Your task to perform on an android device: find which apps use the phone's location Image 0: 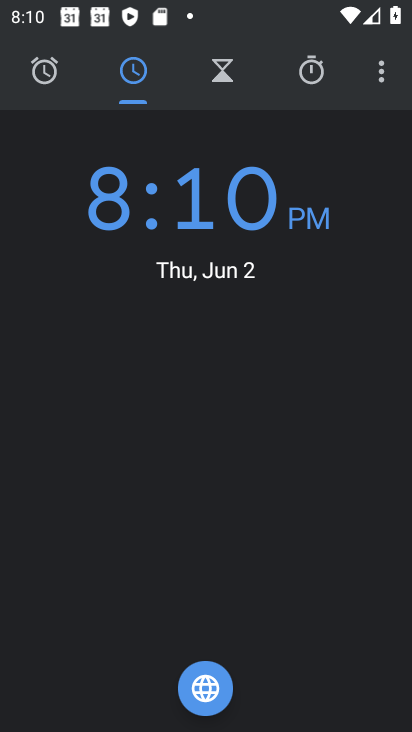
Step 0: press home button
Your task to perform on an android device: find which apps use the phone's location Image 1: 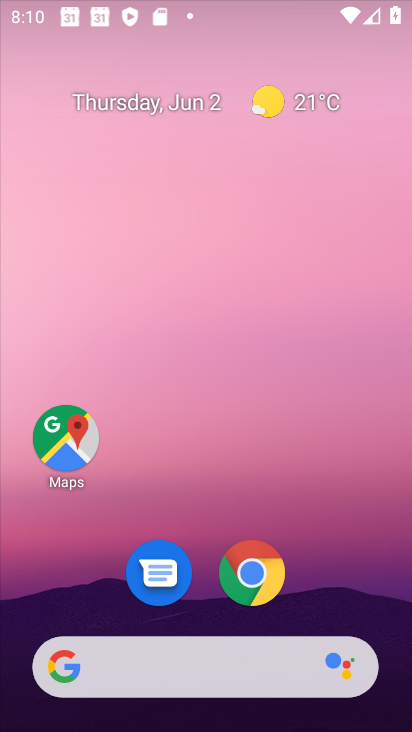
Step 1: drag from (321, 385) to (318, 111)
Your task to perform on an android device: find which apps use the phone's location Image 2: 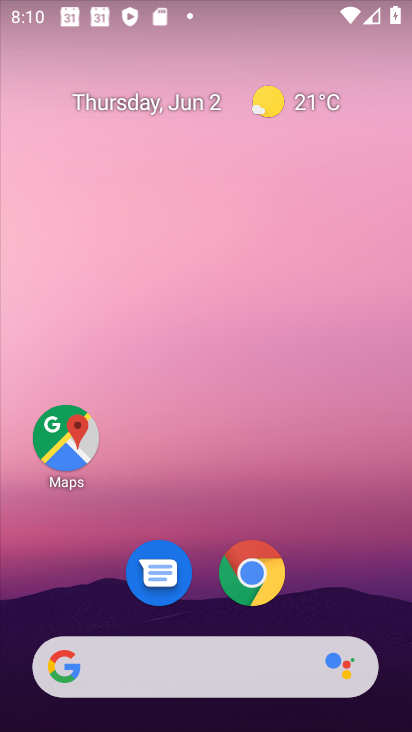
Step 2: drag from (196, 530) to (166, 32)
Your task to perform on an android device: find which apps use the phone's location Image 3: 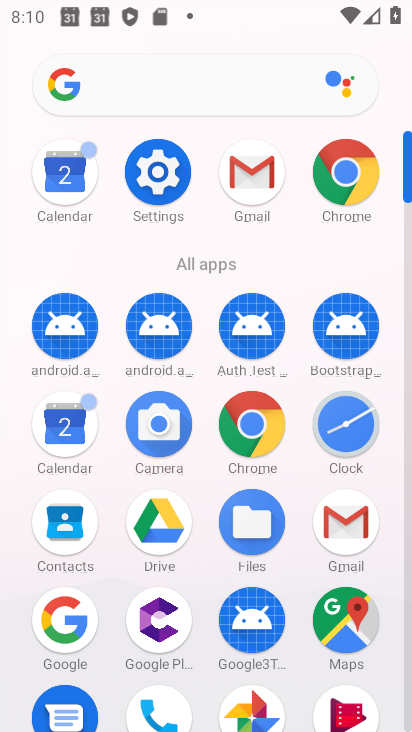
Step 3: click (163, 196)
Your task to perform on an android device: find which apps use the phone's location Image 4: 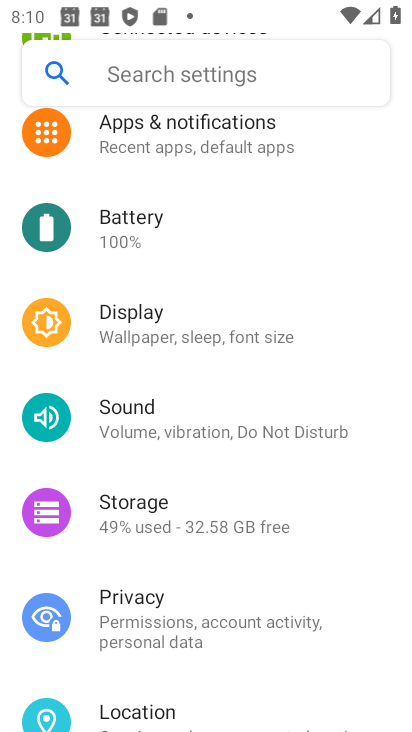
Step 4: drag from (188, 589) to (173, 519)
Your task to perform on an android device: find which apps use the phone's location Image 5: 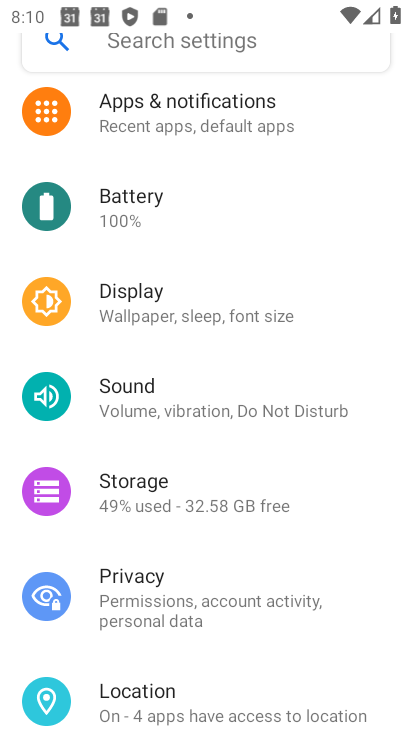
Step 5: click (140, 694)
Your task to perform on an android device: find which apps use the phone's location Image 6: 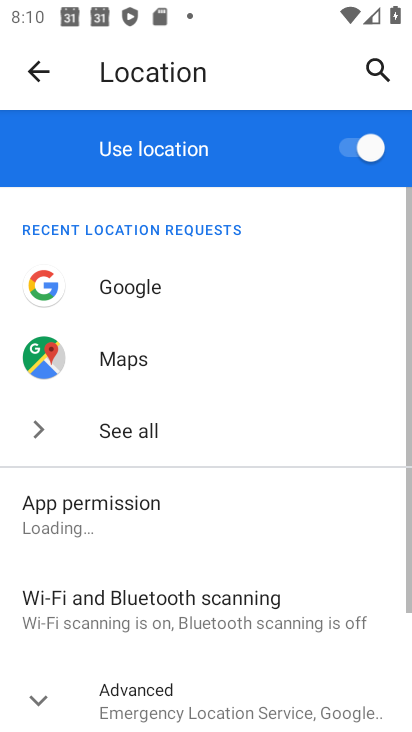
Step 6: drag from (113, 367) to (105, 242)
Your task to perform on an android device: find which apps use the phone's location Image 7: 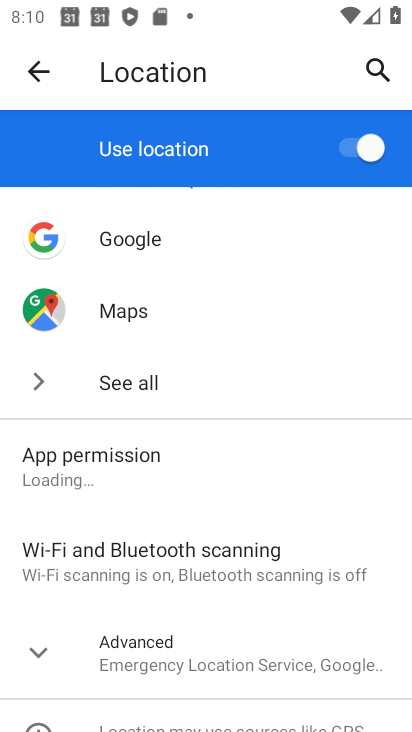
Step 7: click (129, 454)
Your task to perform on an android device: find which apps use the phone's location Image 8: 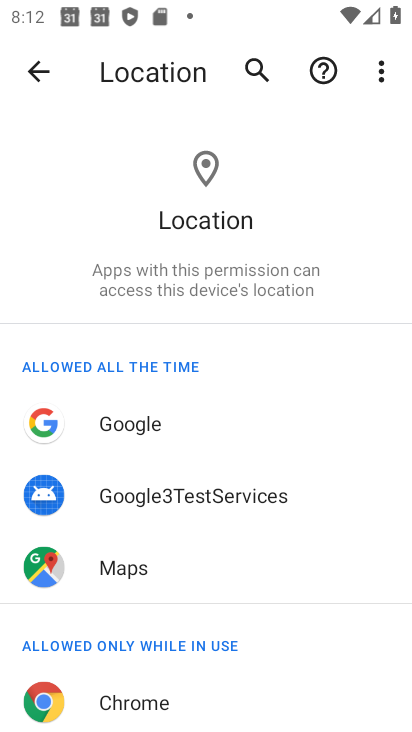
Step 8: task complete